Your task to perform on an android device: Open ESPN.com Image 0: 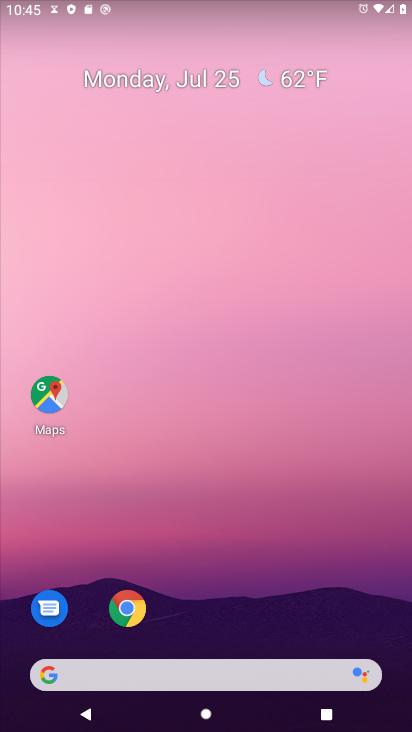
Step 0: click (129, 610)
Your task to perform on an android device: Open ESPN.com Image 1: 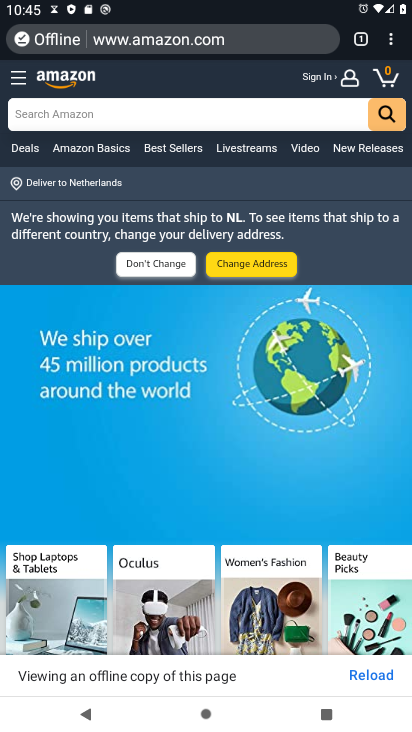
Step 1: click (241, 40)
Your task to perform on an android device: Open ESPN.com Image 2: 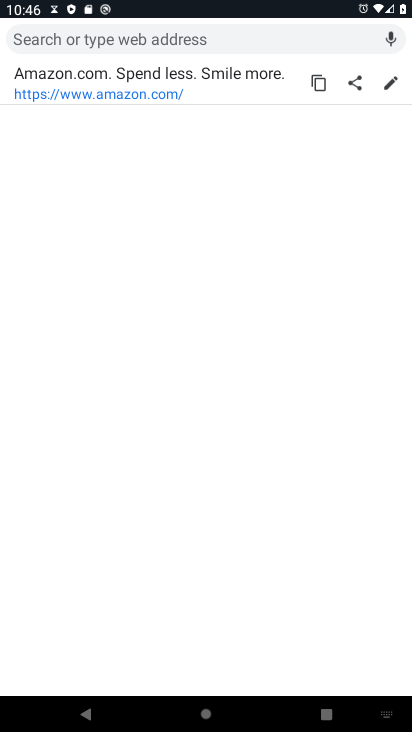
Step 2: type "ESPN.com"
Your task to perform on an android device: Open ESPN.com Image 3: 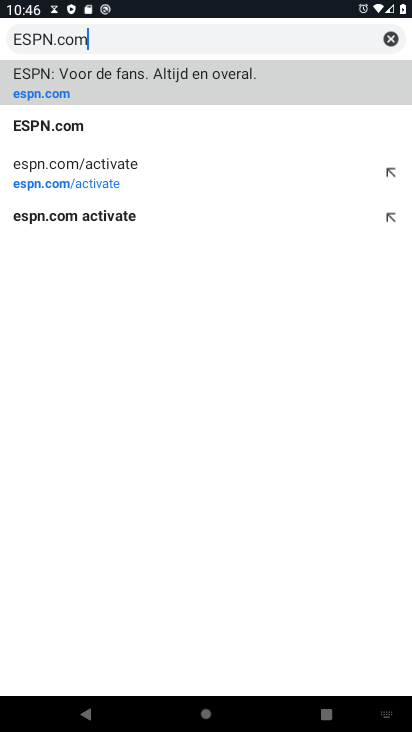
Step 3: click (55, 124)
Your task to perform on an android device: Open ESPN.com Image 4: 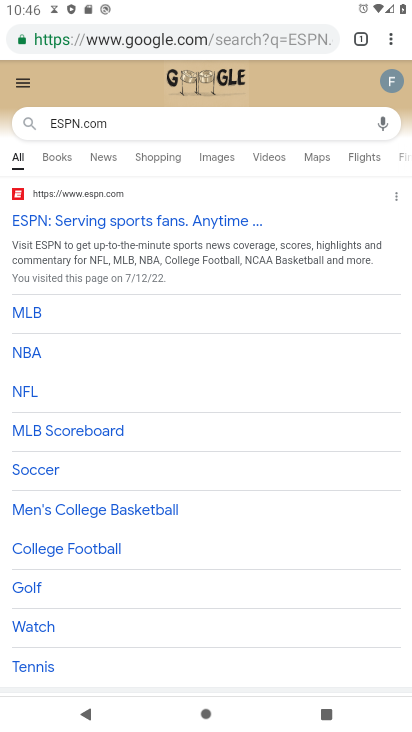
Step 4: click (63, 220)
Your task to perform on an android device: Open ESPN.com Image 5: 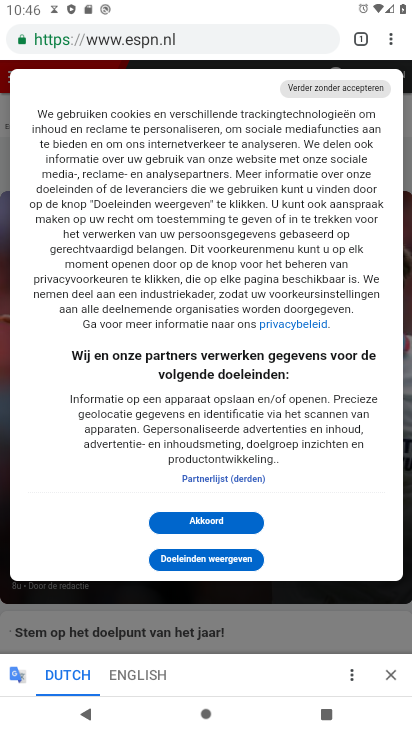
Step 5: task complete